Your task to perform on an android device: Open wifi settings Image 0: 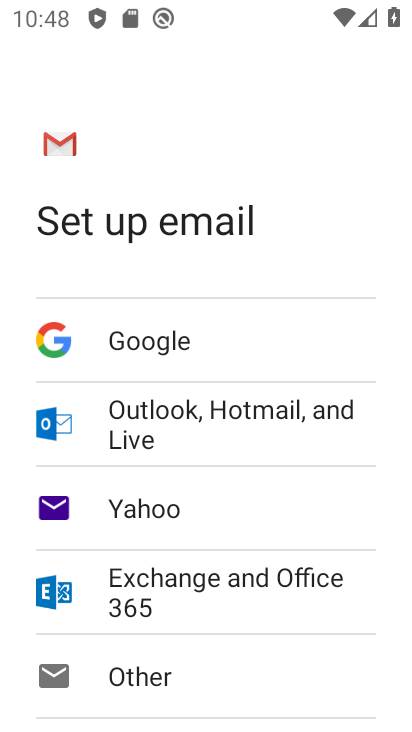
Step 0: press home button
Your task to perform on an android device: Open wifi settings Image 1: 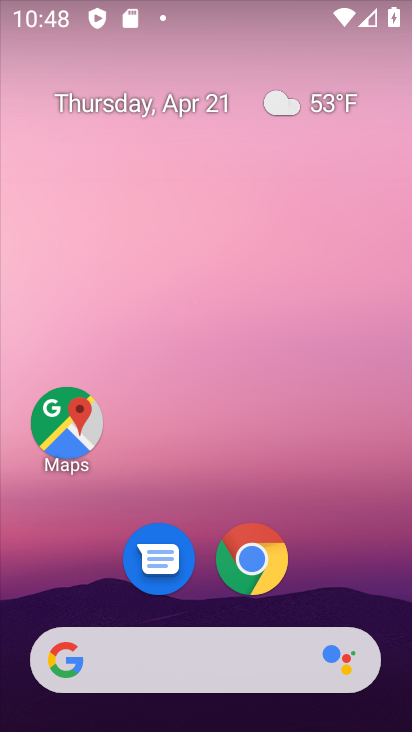
Step 1: drag from (242, 696) to (316, 212)
Your task to perform on an android device: Open wifi settings Image 2: 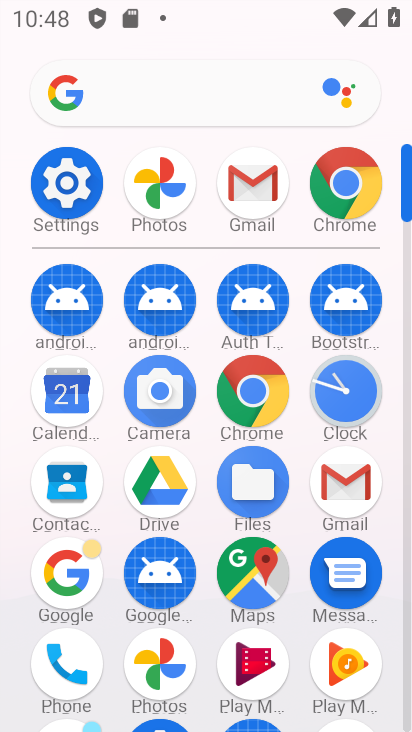
Step 2: click (71, 174)
Your task to perform on an android device: Open wifi settings Image 3: 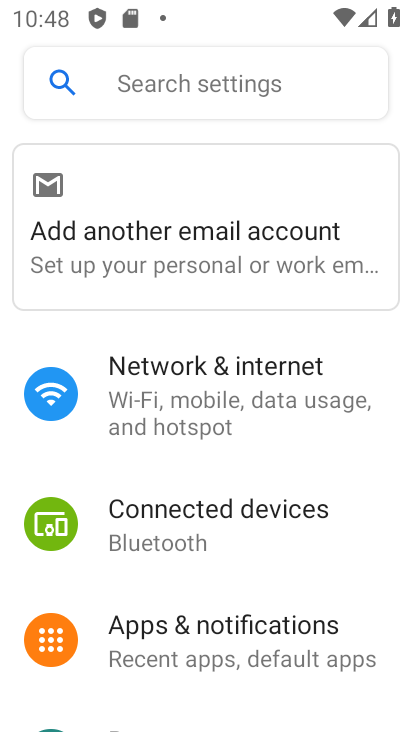
Step 3: click (126, 390)
Your task to perform on an android device: Open wifi settings Image 4: 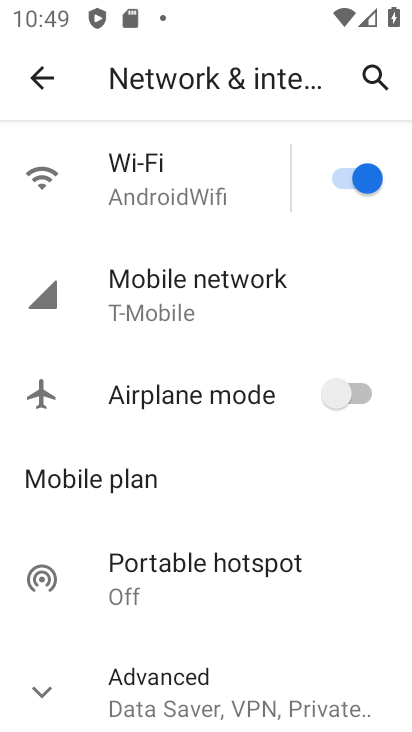
Step 4: click (155, 203)
Your task to perform on an android device: Open wifi settings Image 5: 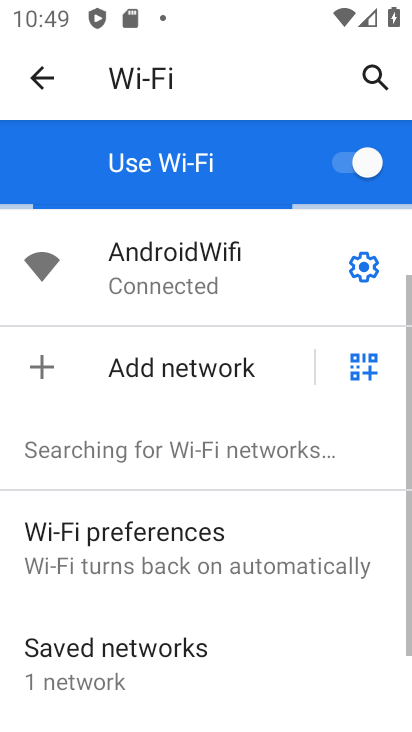
Step 5: task complete